Your task to perform on an android device: Go to sound settings Image 0: 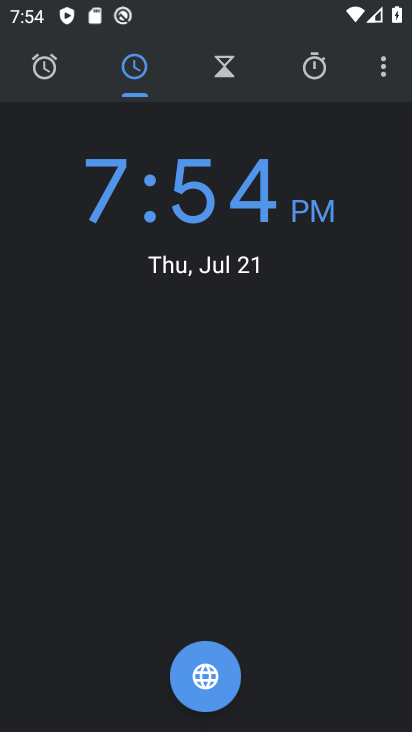
Step 0: press home button
Your task to perform on an android device: Go to sound settings Image 1: 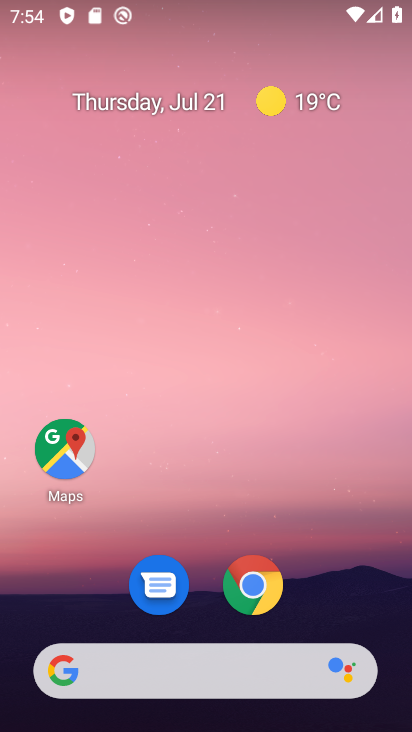
Step 1: drag from (318, 589) to (313, 61)
Your task to perform on an android device: Go to sound settings Image 2: 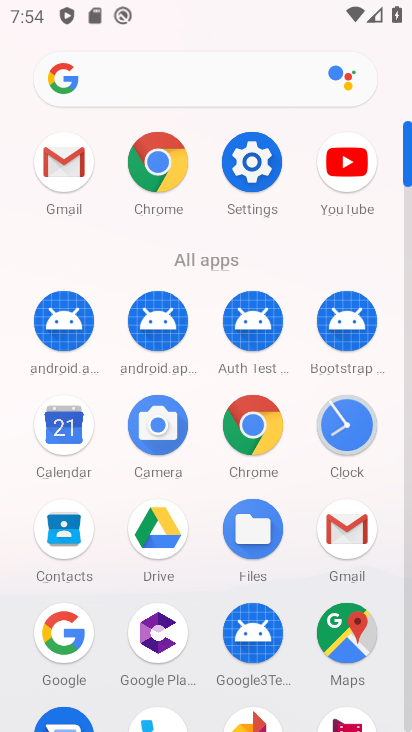
Step 2: click (259, 168)
Your task to perform on an android device: Go to sound settings Image 3: 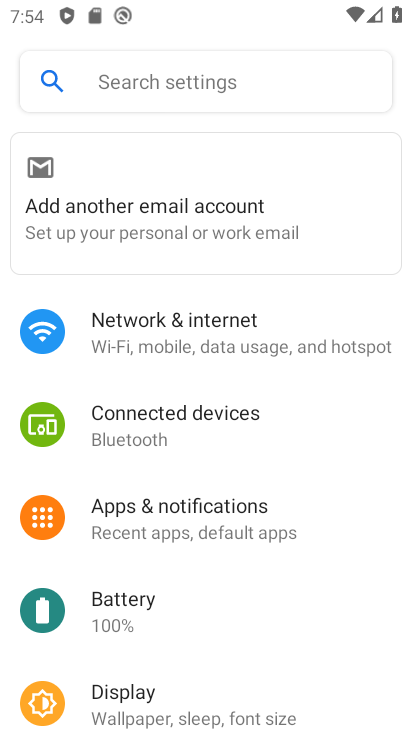
Step 3: drag from (206, 572) to (207, 184)
Your task to perform on an android device: Go to sound settings Image 4: 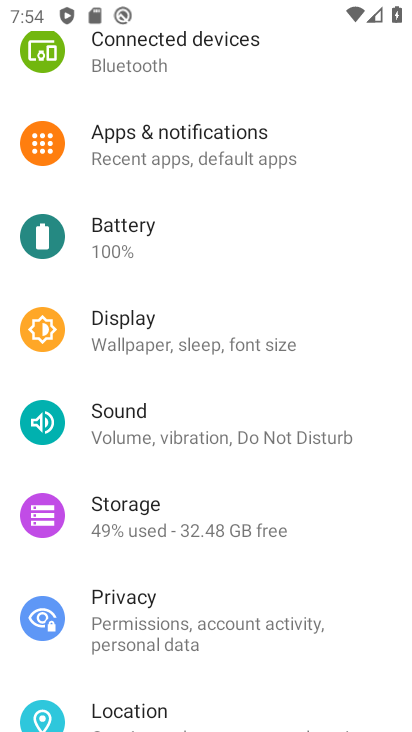
Step 4: click (211, 426)
Your task to perform on an android device: Go to sound settings Image 5: 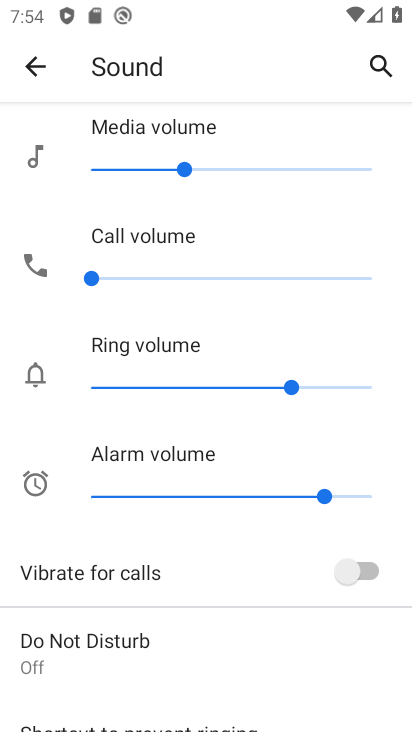
Step 5: task complete